Your task to perform on an android device: change the clock style Image 0: 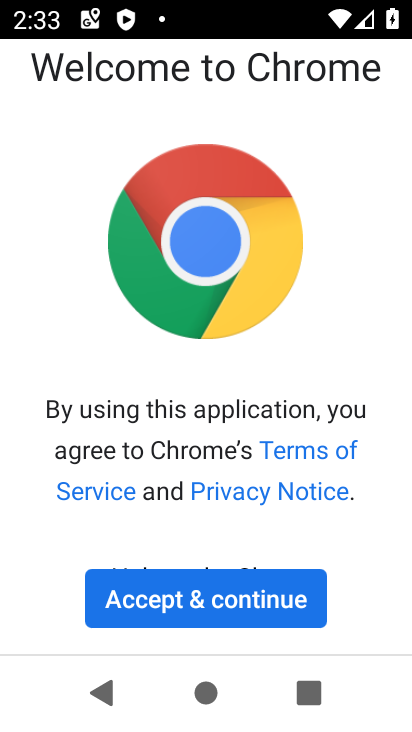
Step 0: press home button
Your task to perform on an android device: change the clock style Image 1: 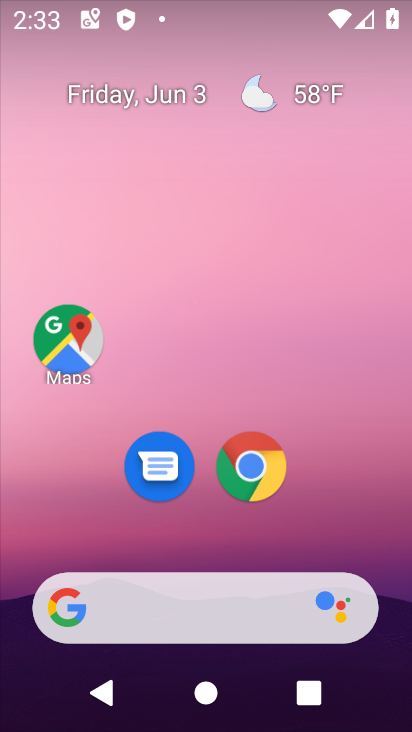
Step 1: click (309, 166)
Your task to perform on an android device: change the clock style Image 2: 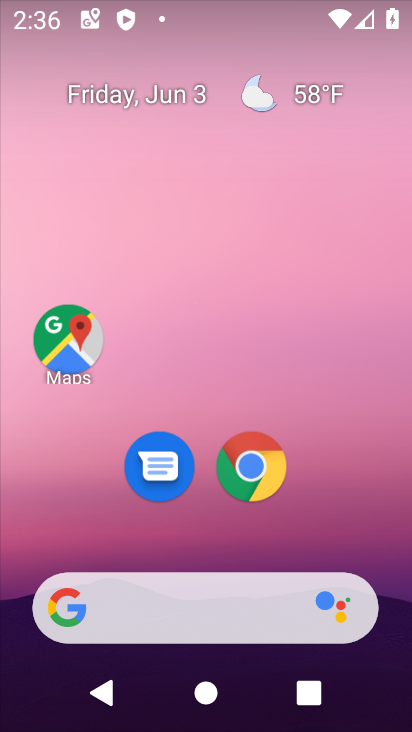
Step 2: drag from (334, 495) to (344, 173)
Your task to perform on an android device: change the clock style Image 3: 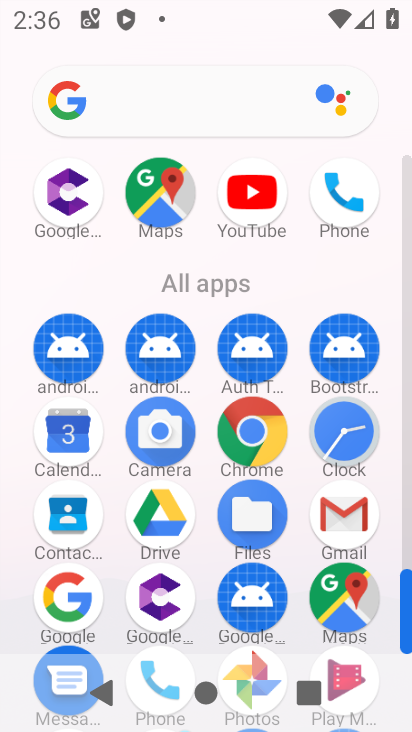
Step 3: click (337, 422)
Your task to perform on an android device: change the clock style Image 4: 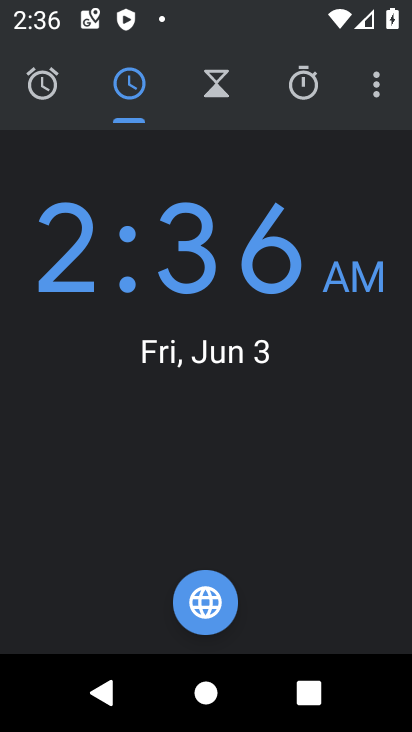
Step 4: click (374, 93)
Your task to perform on an android device: change the clock style Image 5: 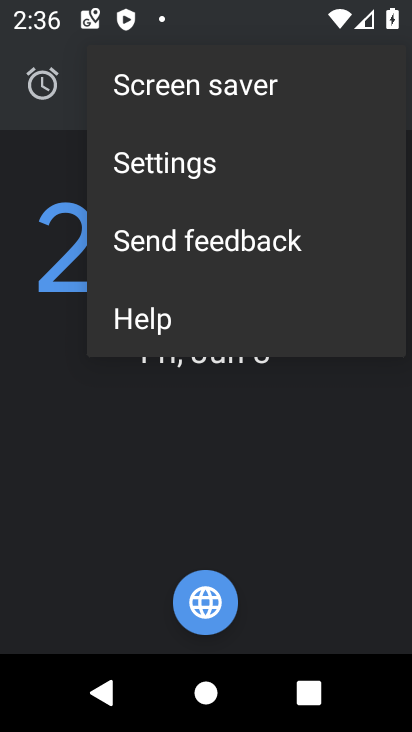
Step 5: click (249, 153)
Your task to perform on an android device: change the clock style Image 6: 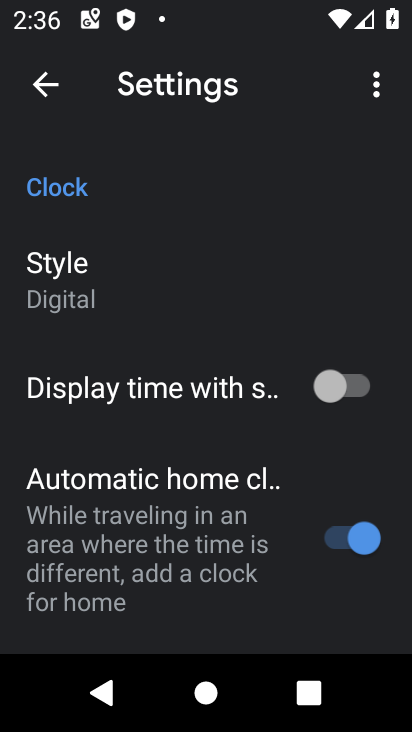
Step 6: click (69, 310)
Your task to perform on an android device: change the clock style Image 7: 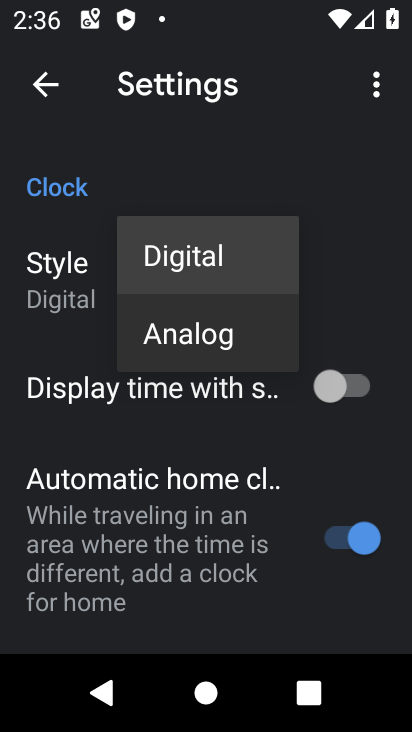
Step 7: click (204, 335)
Your task to perform on an android device: change the clock style Image 8: 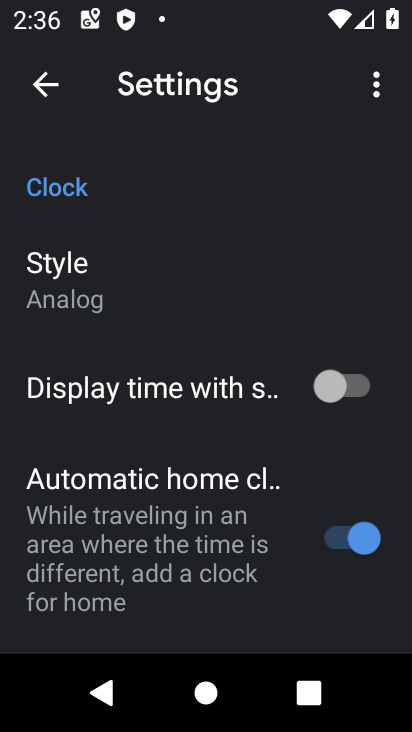
Step 8: task complete